Your task to perform on an android device: Go to Google maps Image 0: 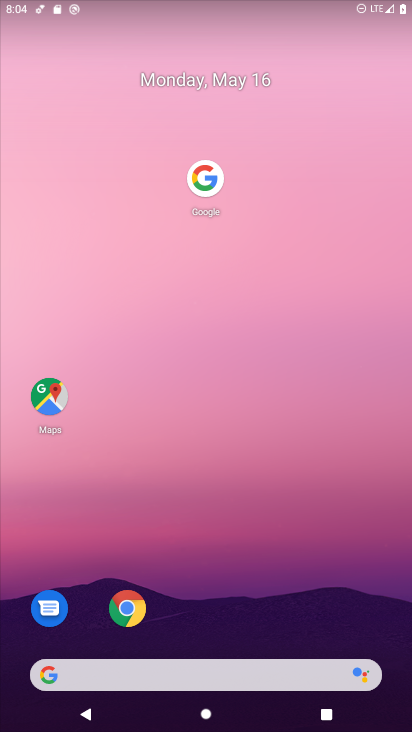
Step 0: click (47, 398)
Your task to perform on an android device: Go to Google maps Image 1: 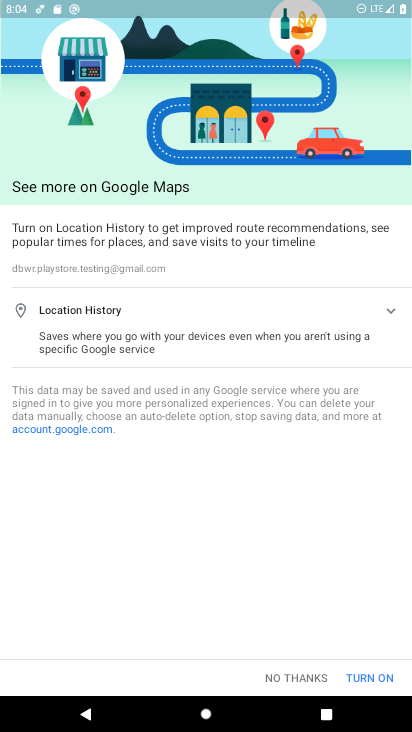
Step 1: click (302, 677)
Your task to perform on an android device: Go to Google maps Image 2: 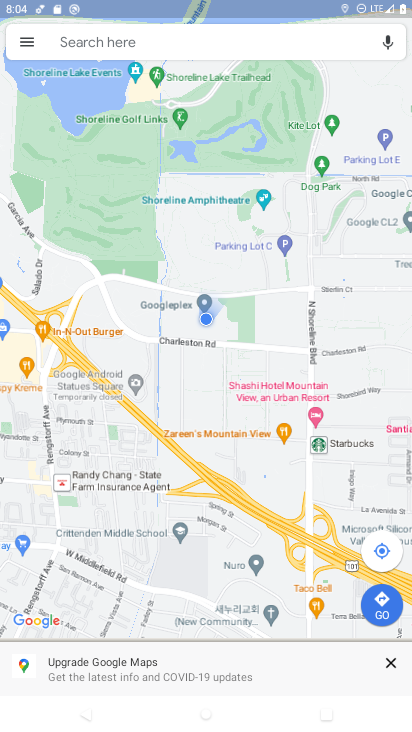
Step 2: task complete